Your task to perform on an android device: Open settings on Google Maps Image 0: 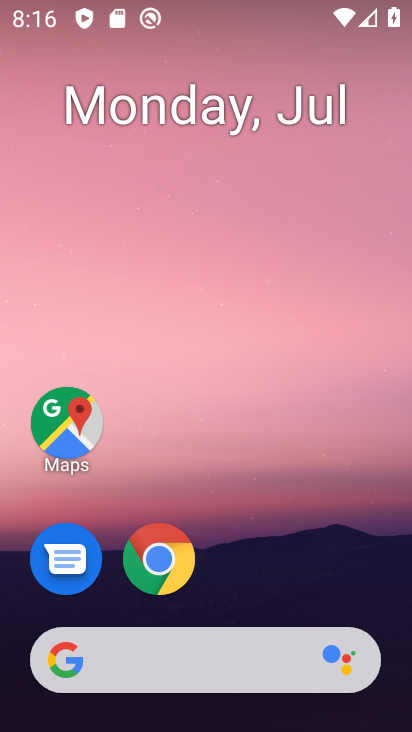
Step 0: drag from (264, 583) to (253, 294)
Your task to perform on an android device: Open settings on Google Maps Image 1: 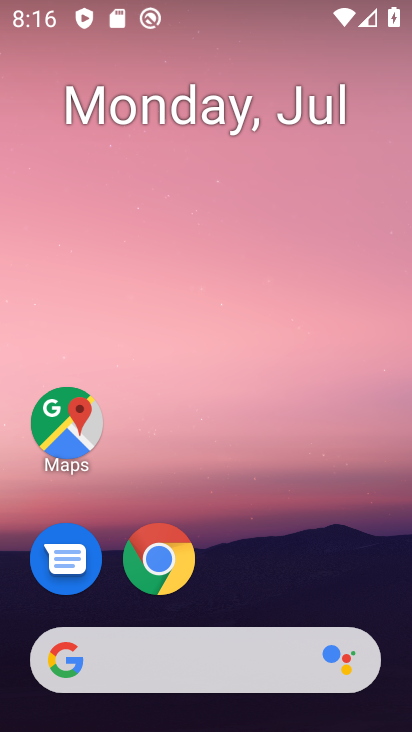
Step 1: click (51, 432)
Your task to perform on an android device: Open settings on Google Maps Image 2: 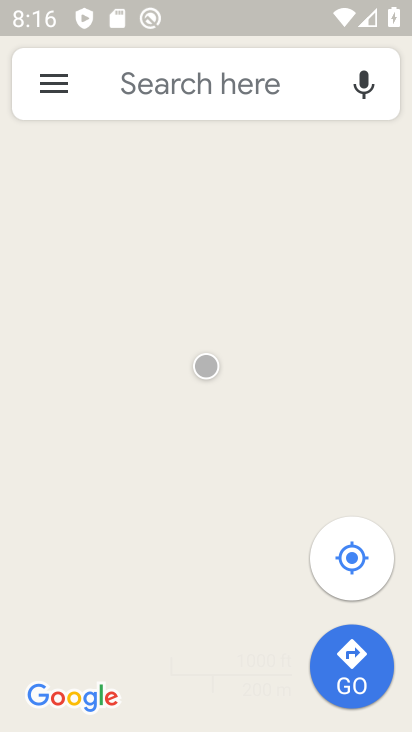
Step 2: click (49, 80)
Your task to perform on an android device: Open settings on Google Maps Image 3: 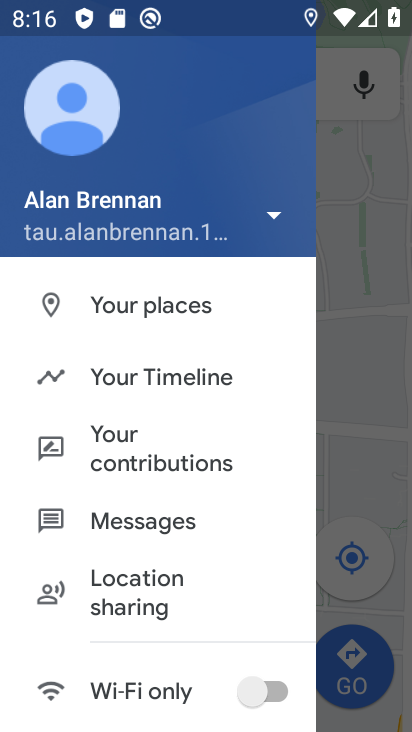
Step 3: click (145, 379)
Your task to perform on an android device: Open settings on Google Maps Image 4: 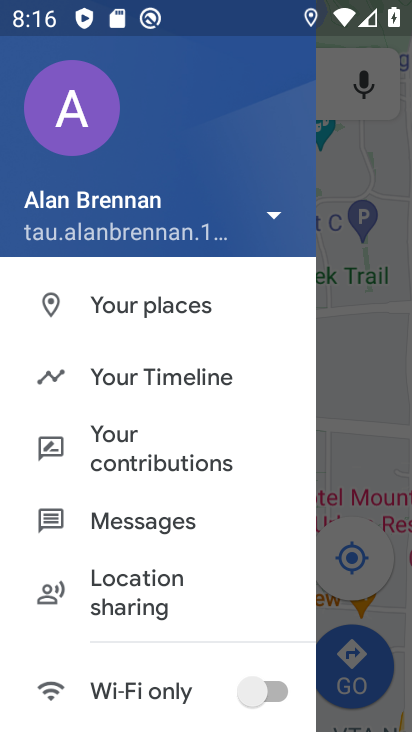
Step 4: click (149, 369)
Your task to perform on an android device: Open settings on Google Maps Image 5: 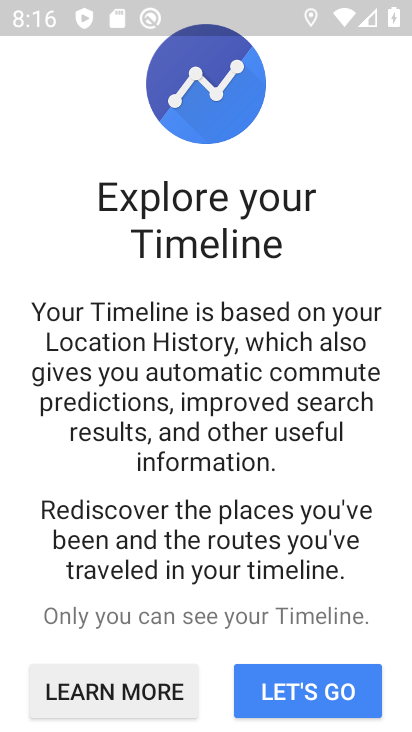
Step 5: click (264, 678)
Your task to perform on an android device: Open settings on Google Maps Image 6: 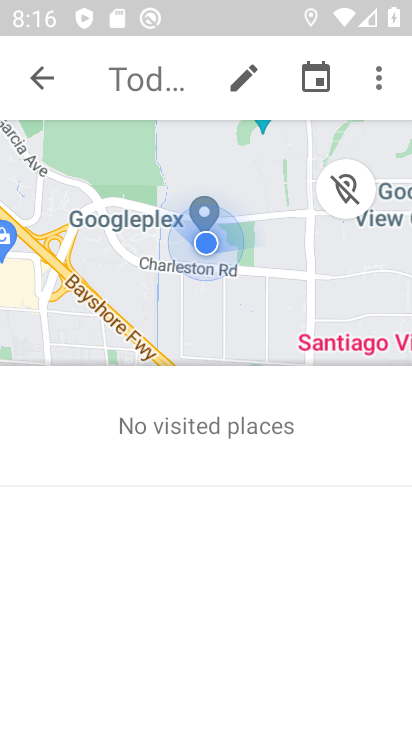
Step 6: click (380, 87)
Your task to perform on an android device: Open settings on Google Maps Image 7: 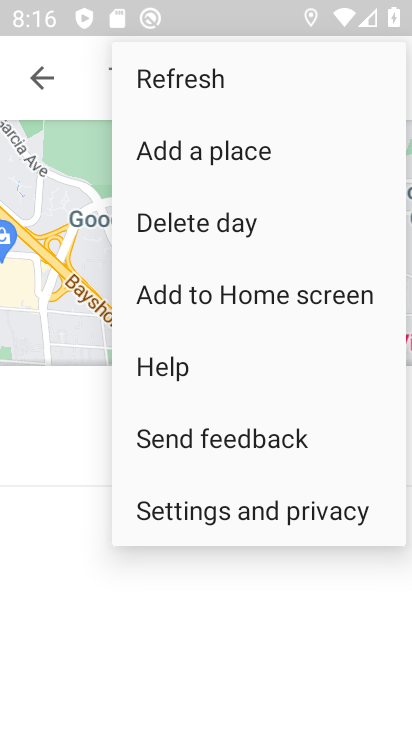
Step 7: click (273, 518)
Your task to perform on an android device: Open settings on Google Maps Image 8: 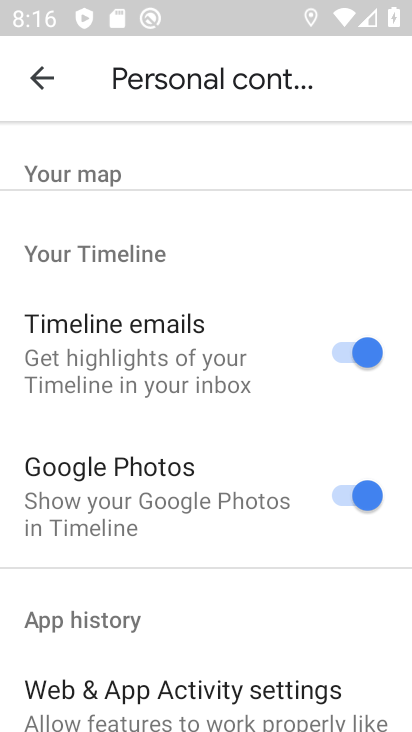
Step 8: task complete